Your task to perform on an android device: open app "Venmo" (install if not already installed), go to login, and select forgot password Image 0: 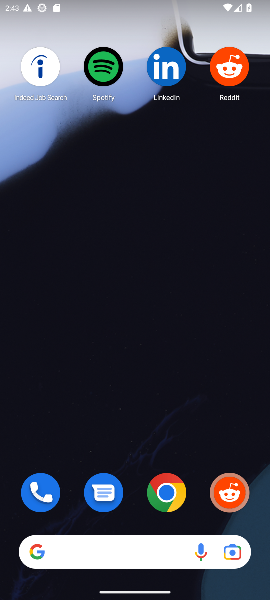
Step 0: drag from (141, 519) to (167, 27)
Your task to perform on an android device: open app "Venmo" (install if not already installed), go to login, and select forgot password Image 1: 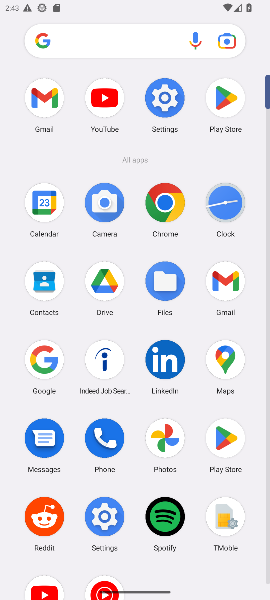
Step 1: click (223, 462)
Your task to perform on an android device: open app "Venmo" (install if not already installed), go to login, and select forgot password Image 2: 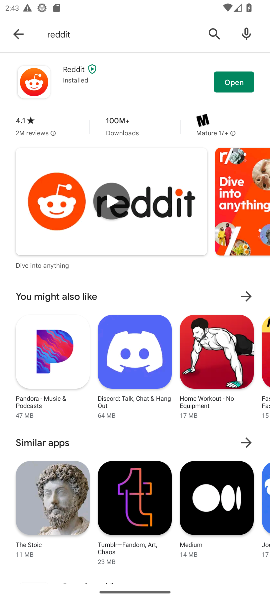
Step 2: click (204, 42)
Your task to perform on an android device: open app "Venmo" (install if not already installed), go to login, and select forgot password Image 3: 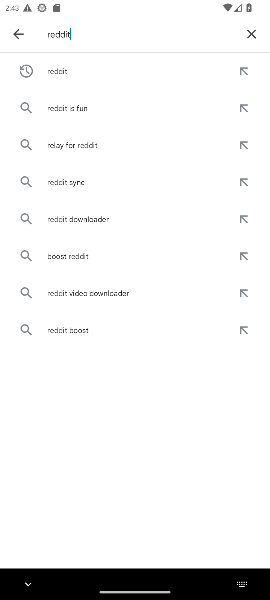
Step 3: click (246, 42)
Your task to perform on an android device: open app "Venmo" (install if not already installed), go to login, and select forgot password Image 4: 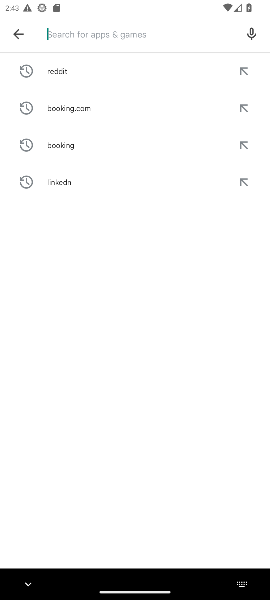
Step 4: type "venmo"
Your task to perform on an android device: open app "Venmo" (install if not already installed), go to login, and select forgot password Image 5: 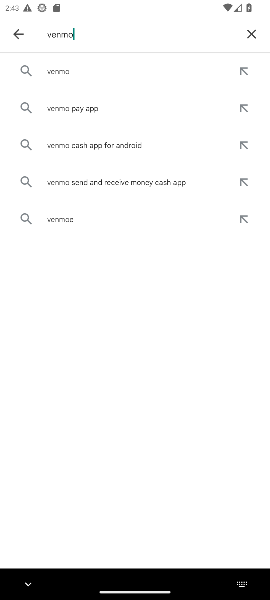
Step 5: click (73, 78)
Your task to perform on an android device: open app "Venmo" (install if not already installed), go to login, and select forgot password Image 6: 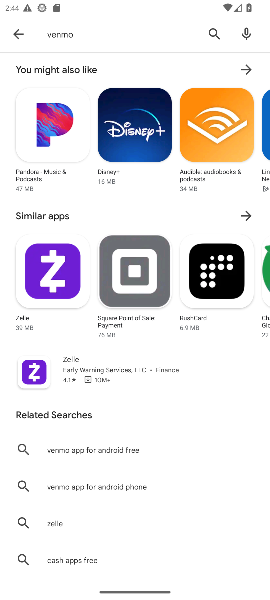
Step 6: task complete